Your task to perform on an android device: Open battery settings Image 0: 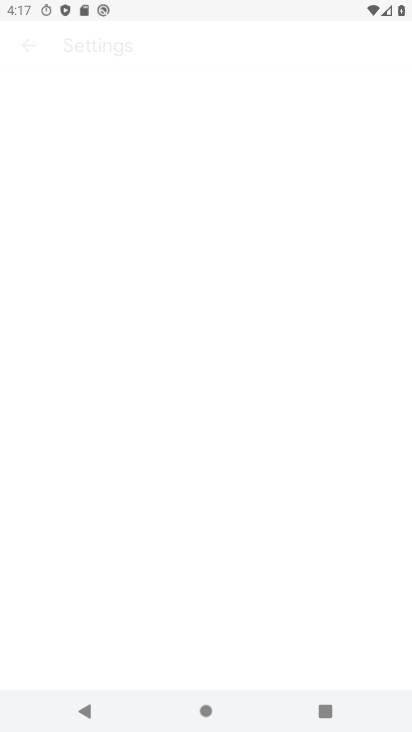
Step 0: drag from (197, 619) to (203, 10)
Your task to perform on an android device: Open battery settings Image 1: 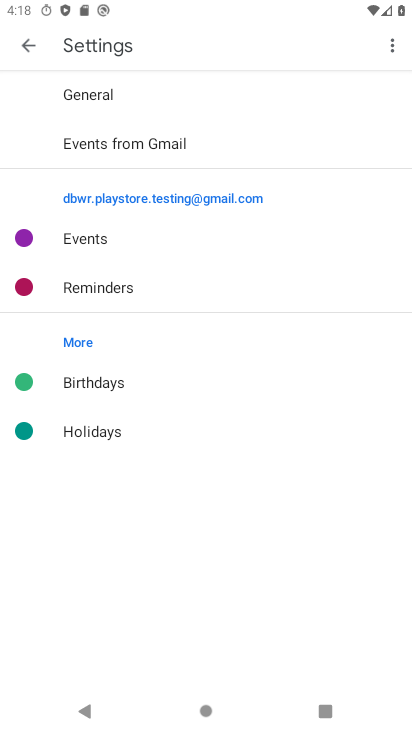
Step 1: press home button
Your task to perform on an android device: Open battery settings Image 2: 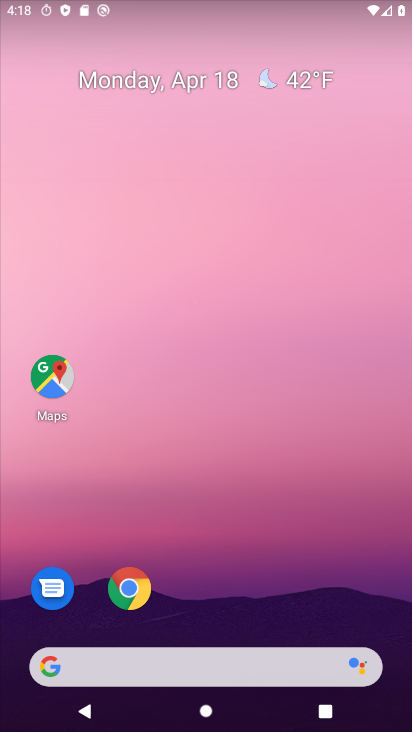
Step 2: drag from (210, 15) to (219, 446)
Your task to perform on an android device: Open battery settings Image 3: 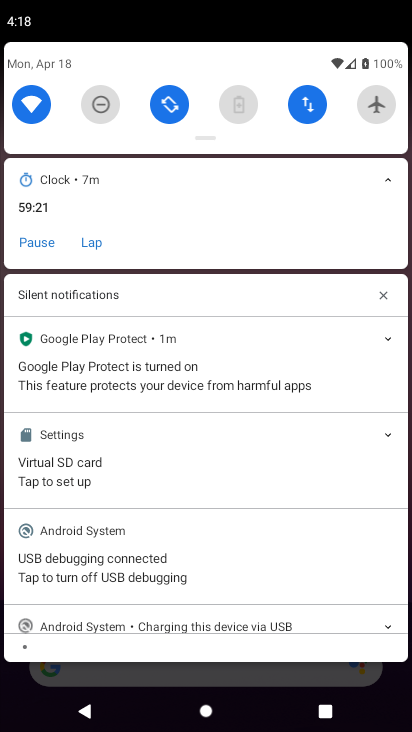
Step 3: drag from (189, 61) to (234, 560)
Your task to perform on an android device: Open battery settings Image 4: 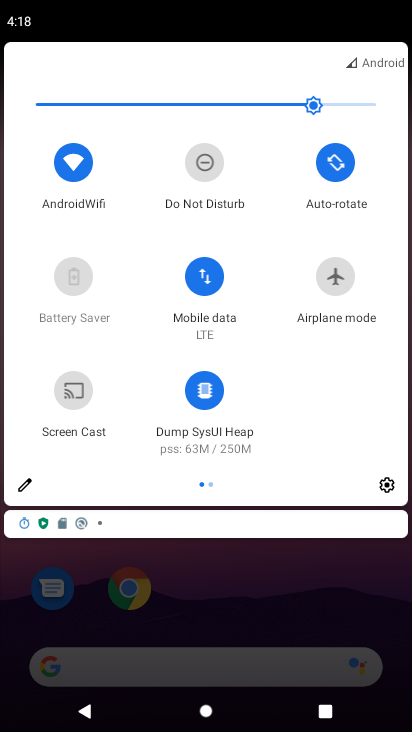
Step 4: click (387, 482)
Your task to perform on an android device: Open battery settings Image 5: 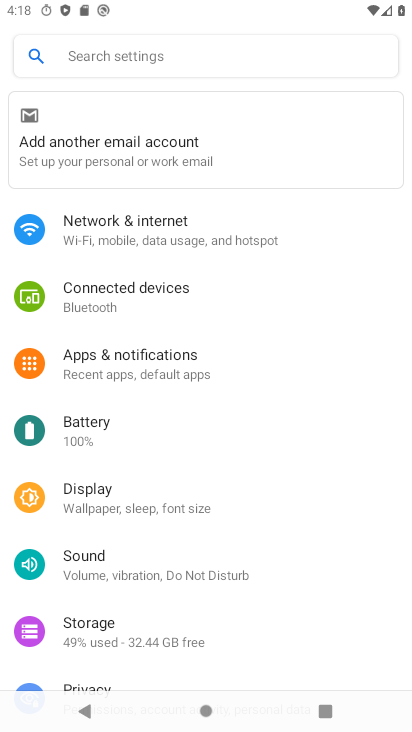
Step 5: click (155, 431)
Your task to perform on an android device: Open battery settings Image 6: 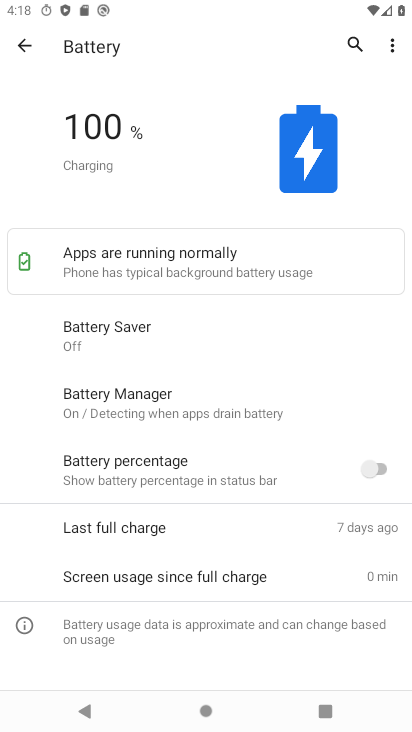
Step 6: click (392, 54)
Your task to perform on an android device: Open battery settings Image 7: 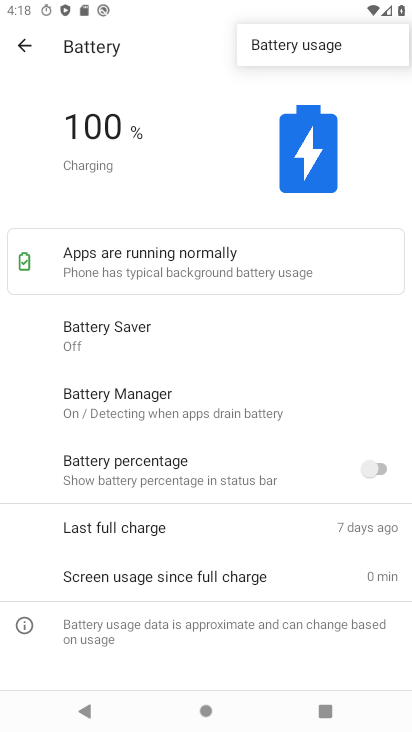
Step 7: click (319, 46)
Your task to perform on an android device: Open battery settings Image 8: 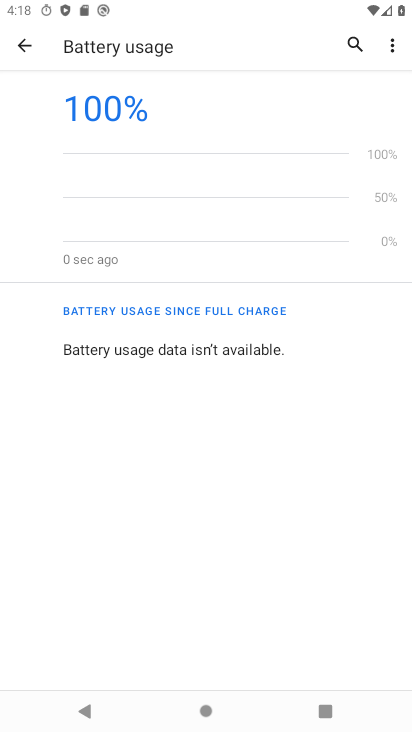
Step 8: task complete